Your task to perform on an android device: open a bookmark in the chrome app Image 0: 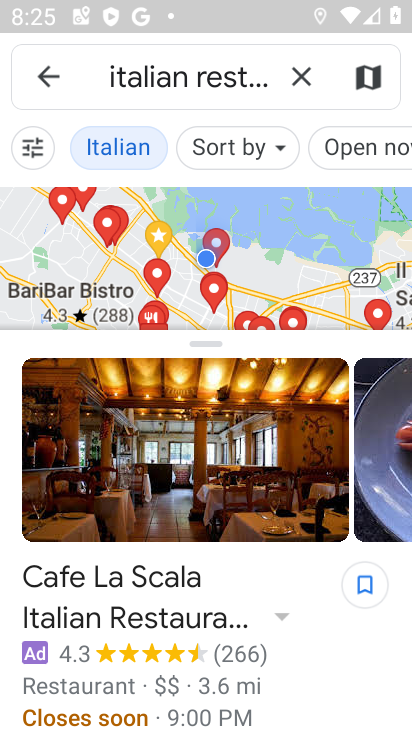
Step 0: press home button
Your task to perform on an android device: open a bookmark in the chrome app Image 1: 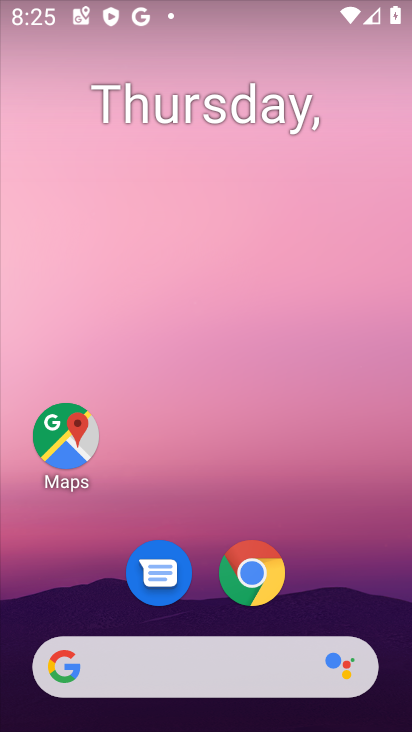
Step 1: drag from (371, 596) to (371, 144)
Your task to perform on an android device: open a bookmark in the chrome app Image 2: 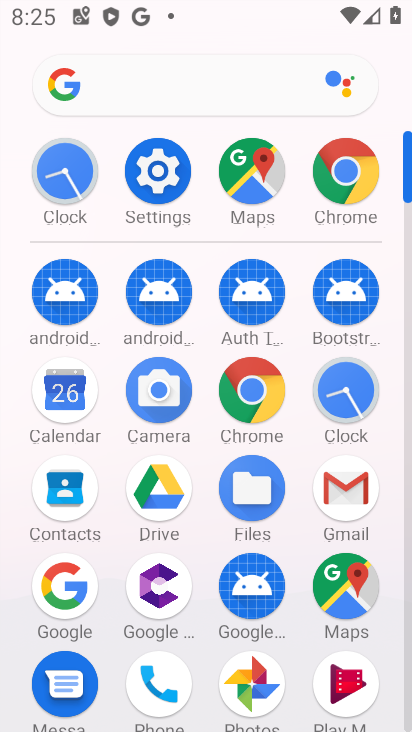
Step 2: click (242, 400)
Your task to perform on an android device: open a bookmark in the chrome app Image 3: 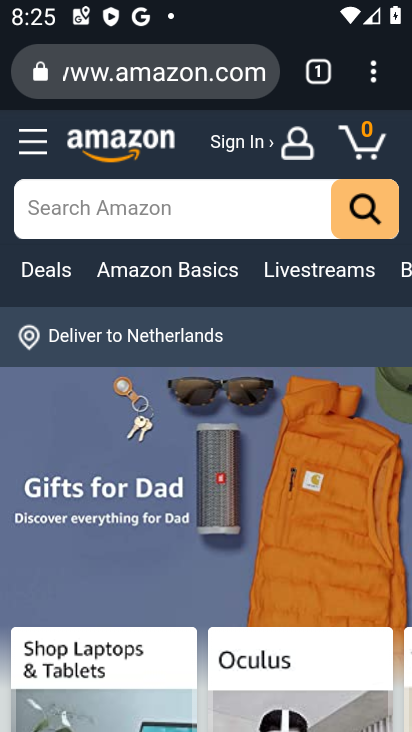
Step 3: click (373, 79)
Your task to perform on an android device: open a bookmark in the chrome app Image 4: 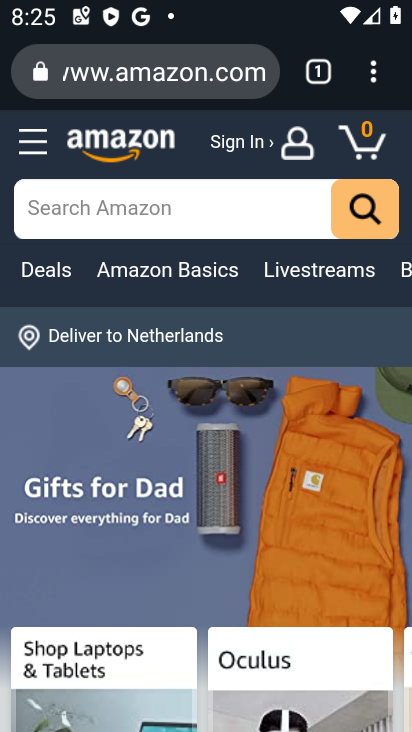
Step 4: task complete